Your task to perform on an android device: Open network settings Image 0: 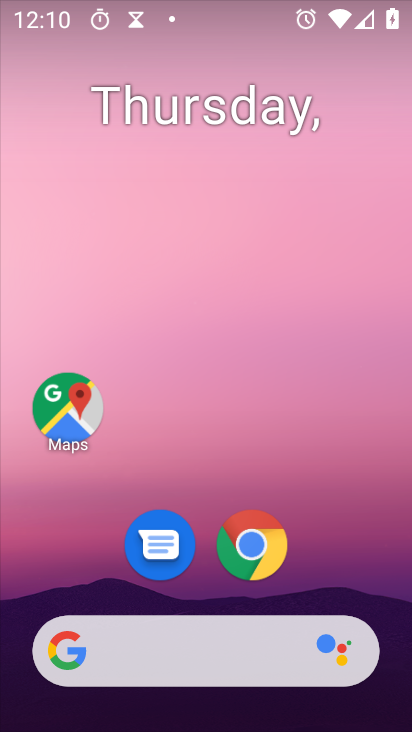
Step 0: press home button
Your task to perform on an android device: Open network settings Image 1: 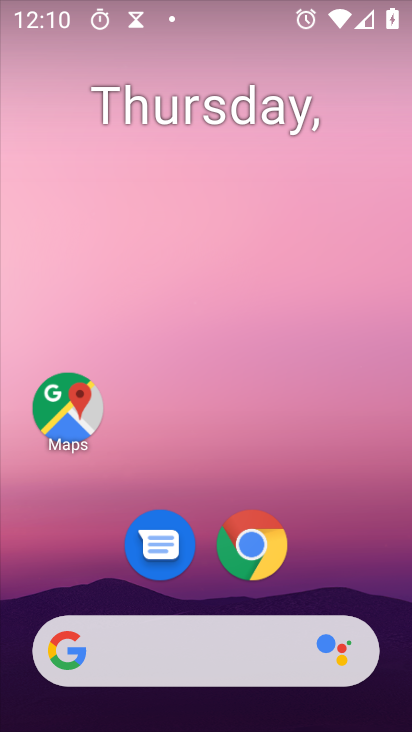
Step 1: drag from (139, 663) to (306, 161)
Your task to perform on an android device: Open network settings Image 2: 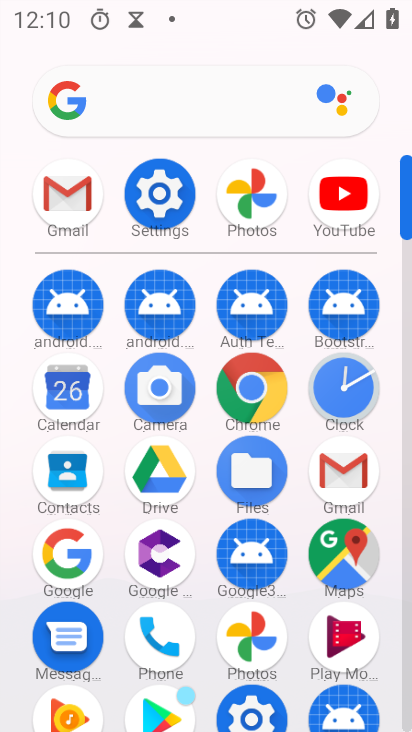
Step 2: click (164, 210)
Your task to perform on an android device: Open network settings Image 3: 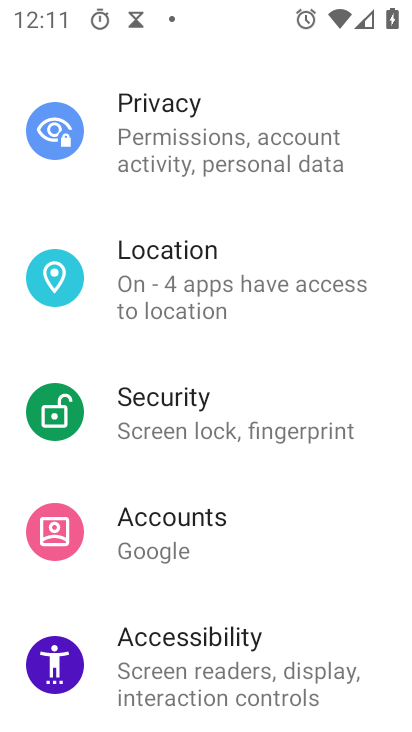
Step 3: drag from (318, 106) to (309, 487)
Your task to perform on an android device: Open network settings Image 4: 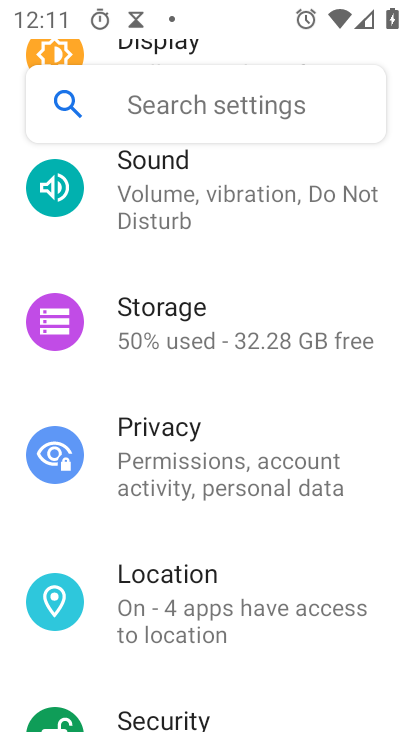
Step 4: drag from (297, 164) to (298, 633)
Your task to perform on an android device: Open network settings Image 5: 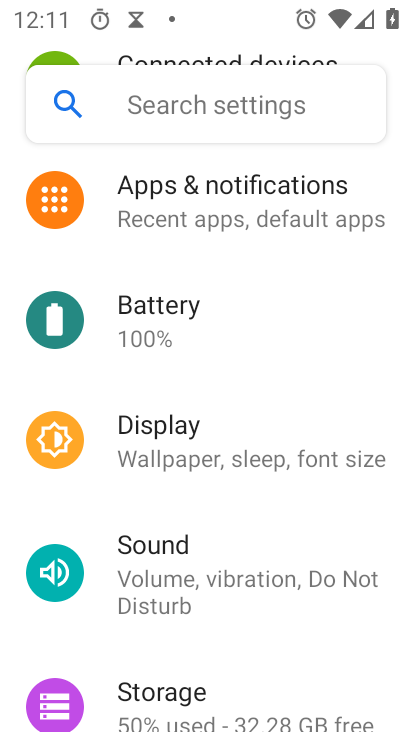
Step 5: drag from (255, 296) to (277, 562)
Your task to perform on an android device: Open network settings Image 6: 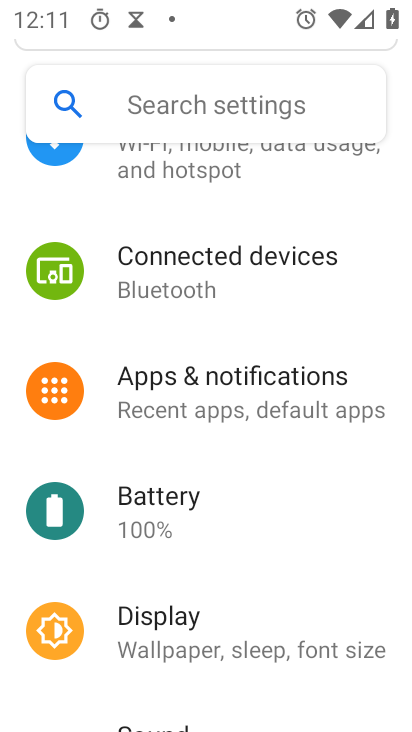
Step 6: drag from (272, 208) to (309, 545)
Your task to perform on an android device: Open network settings Image 7: 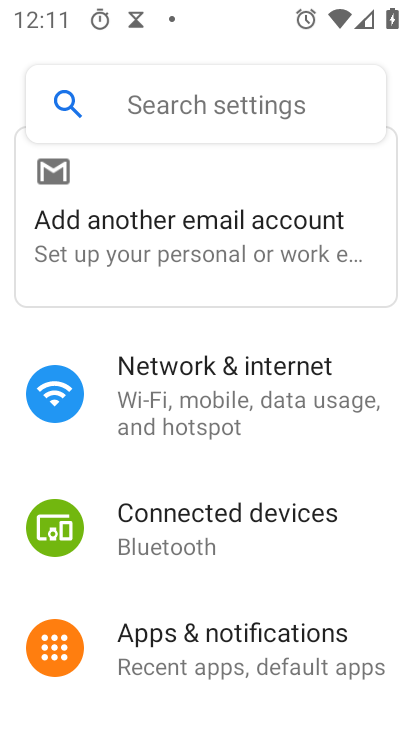
Step 7: click (257, 391)
Your task to perform on an android device: Open network settings Image 8: 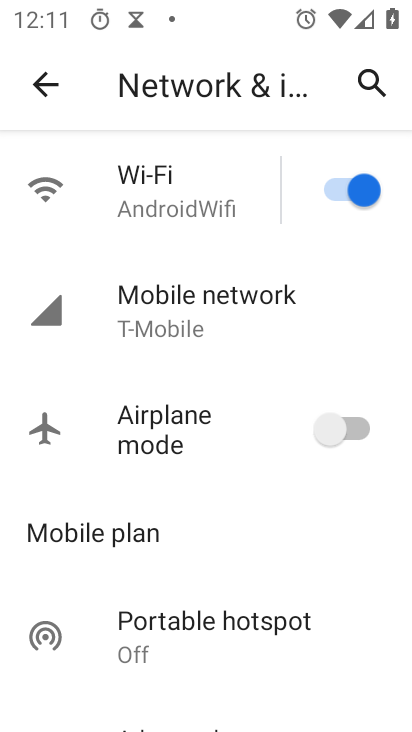
Step 8: task complete